Your task to perform on an android device: turn smart compose on in the gmail app Image 0: 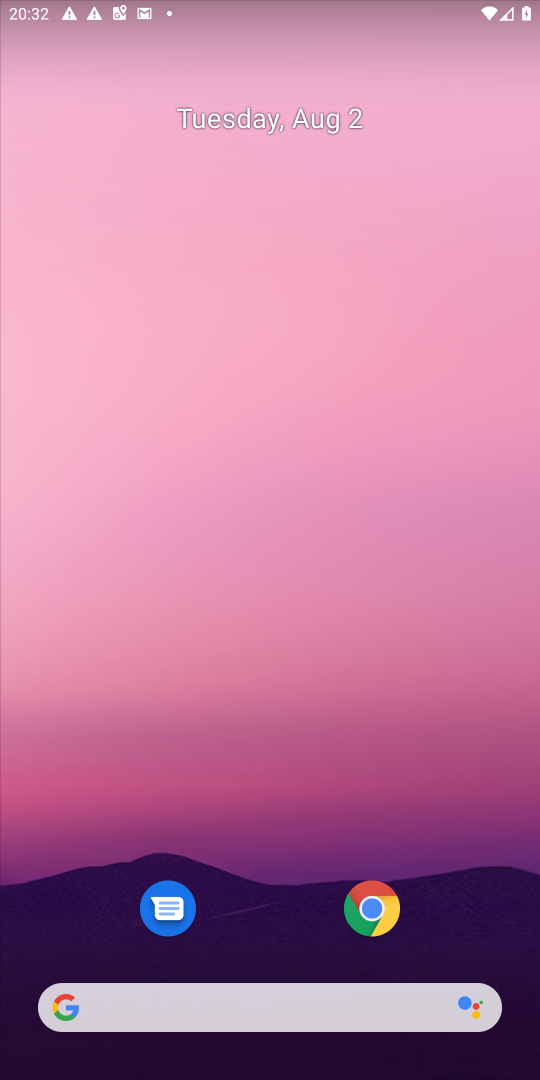
Step 0: drag from (223, 1051) to (252, 340)
Your task to perform on an android device: turn smart compose on in the gmail app Image 1: 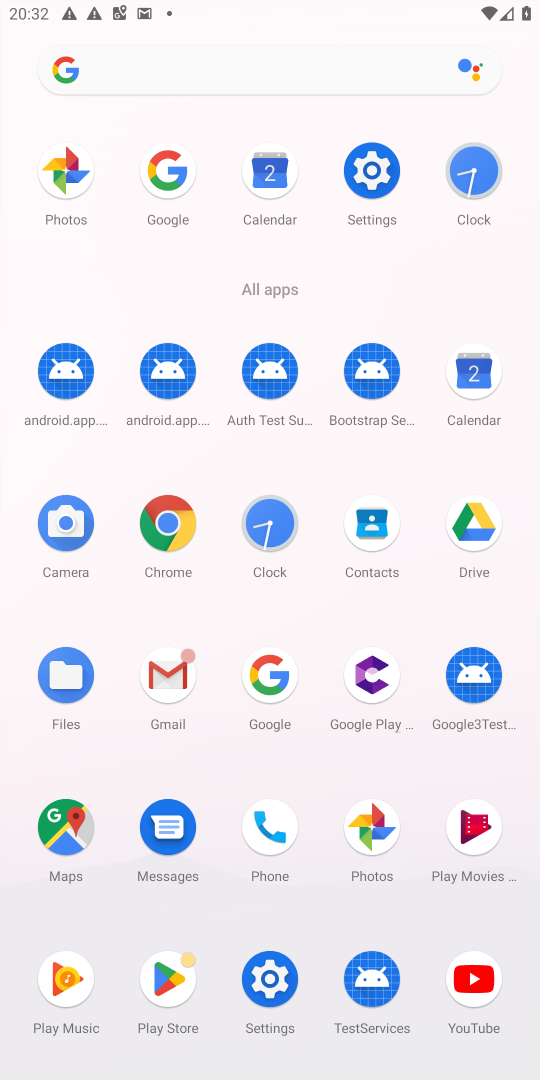
Step 1: click (169, 656)
Your task to perform on an android device: turn smart compose on in the gmail app Image 2: 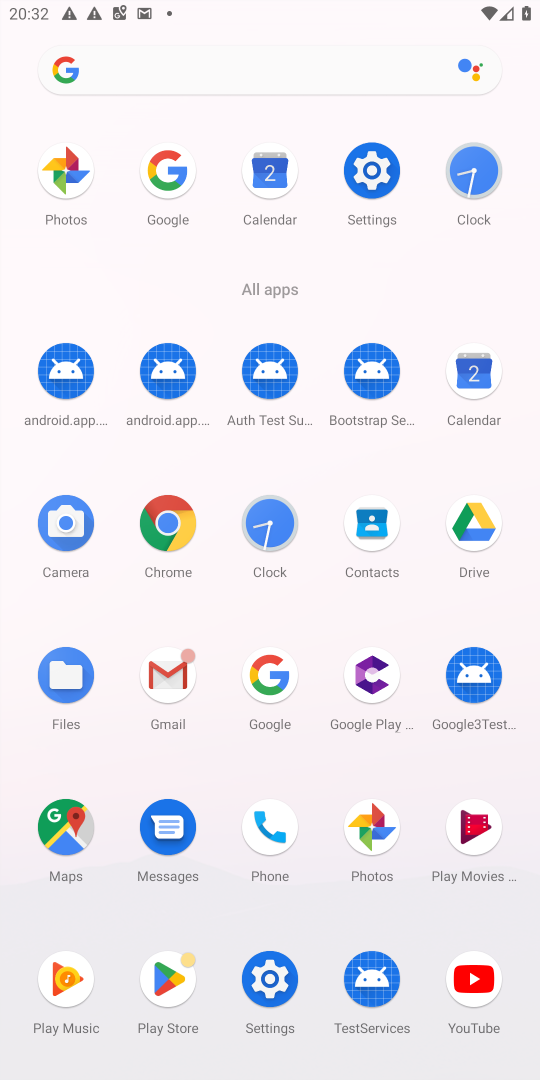
Step 2: click (169, 656)
Your task to perform on an android device: turn smart compose on in the gmail app Image 3: 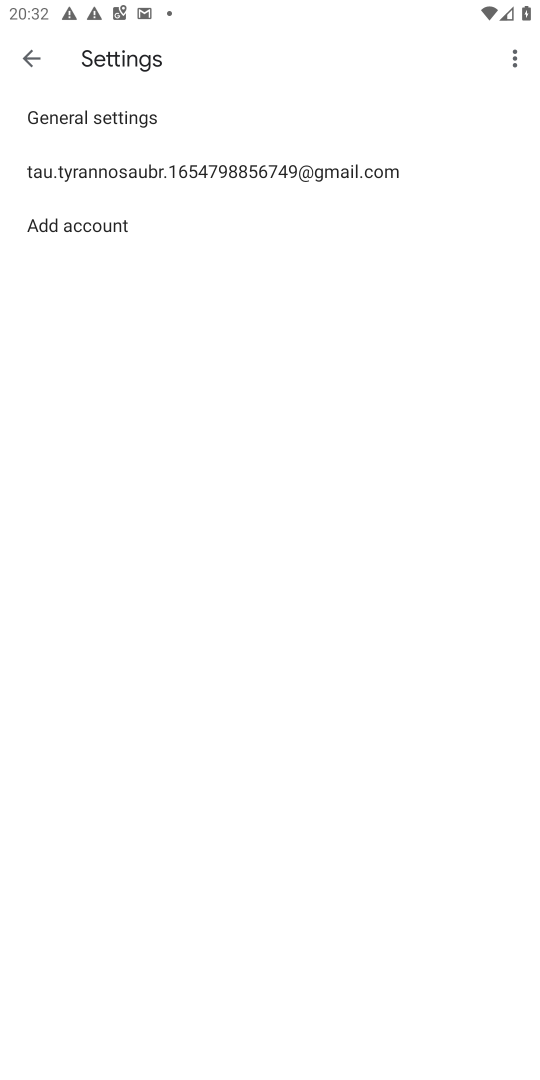
Step 3: click (191, 171)
Your task to perform on an android device: turn smart compose on in the gmail app Image 4: 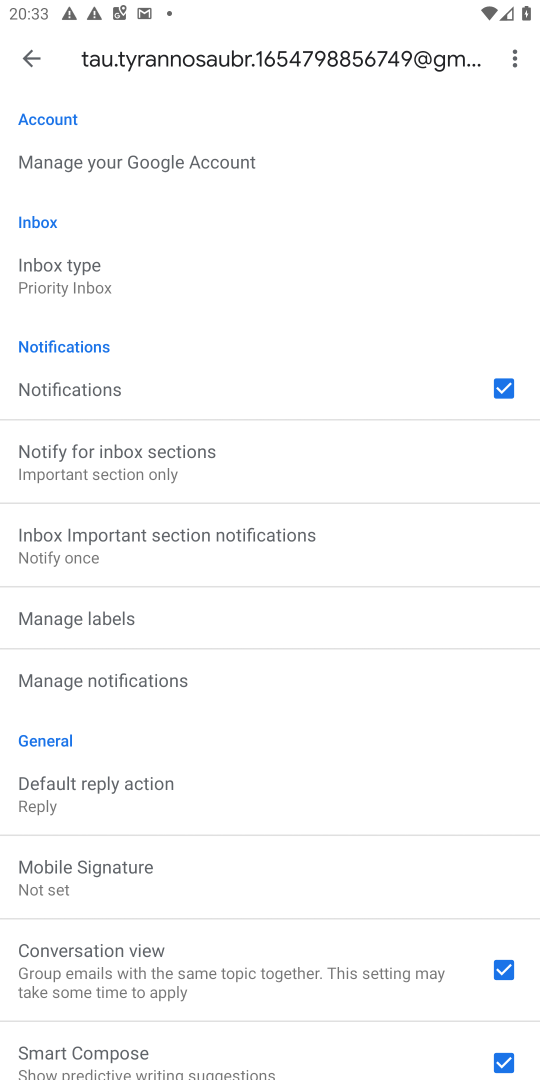
Step 4: task complete